Your task to perform on an android device: Open internet settings Image 0: 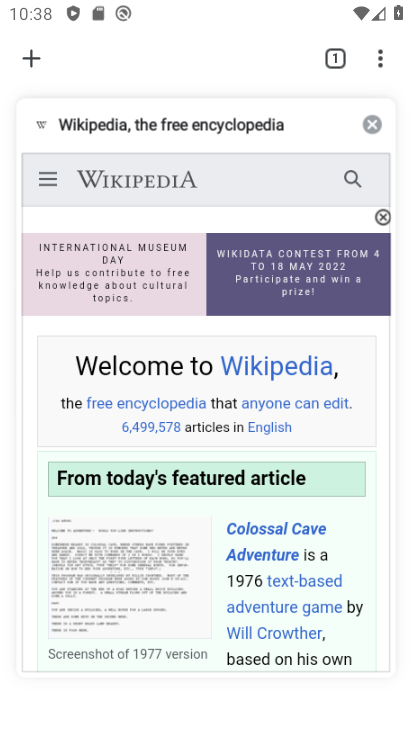
Step 0: press home button
Your task to perform on an android device: Open internet settings Image 1: 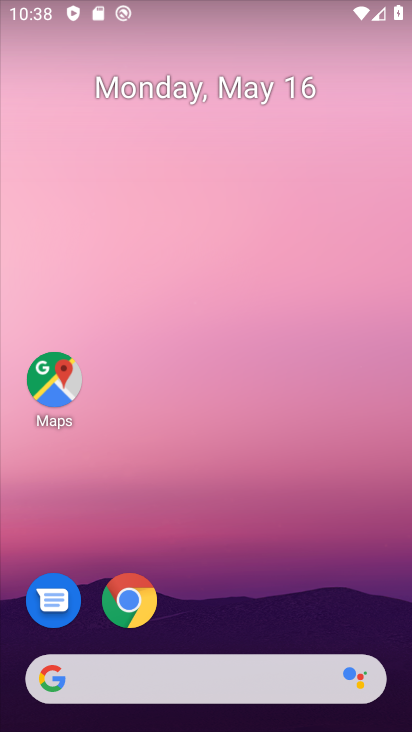
Step 1: click (196, 320)
Your task to perform on an android device: Open internet settings Image 2: 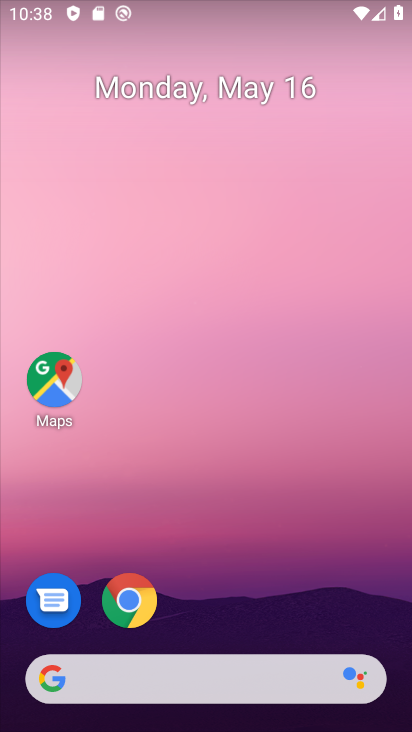
Step 2: drag from (191, 620) to (205, 272)
Your task to perform on an android device: Open internet settings Image 3: 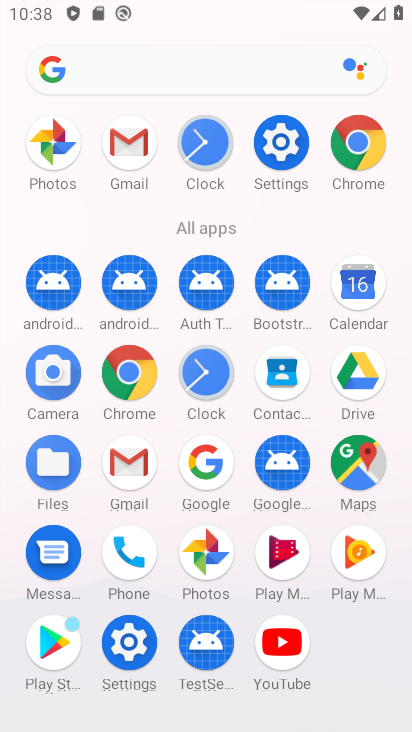
Step 3: click (293, 156)
Your task to perform on an android device: Open internet settings Image 4: 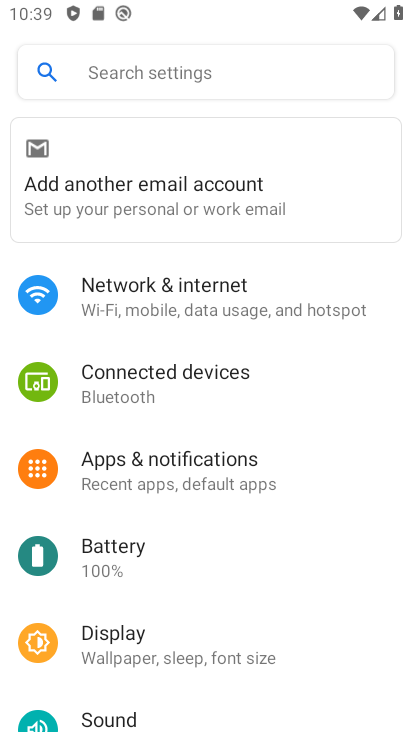
Step 4: click (215, 284)
Your task to perform on an android device: Open internet settings Image 5: 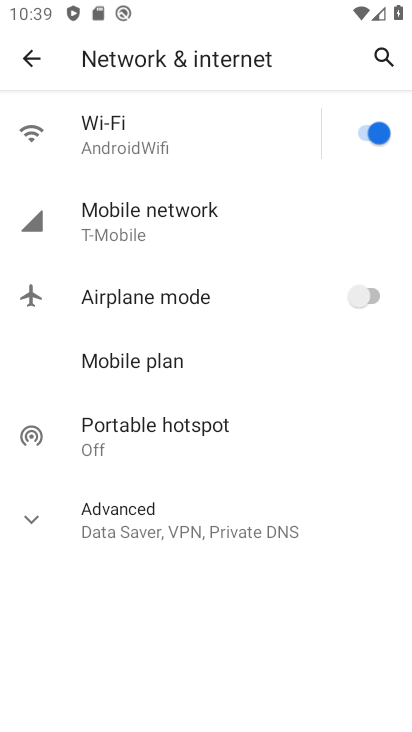
Step 5: task complete